Your task to perform on an android device: Do I have any events tomorrow? Image 0: 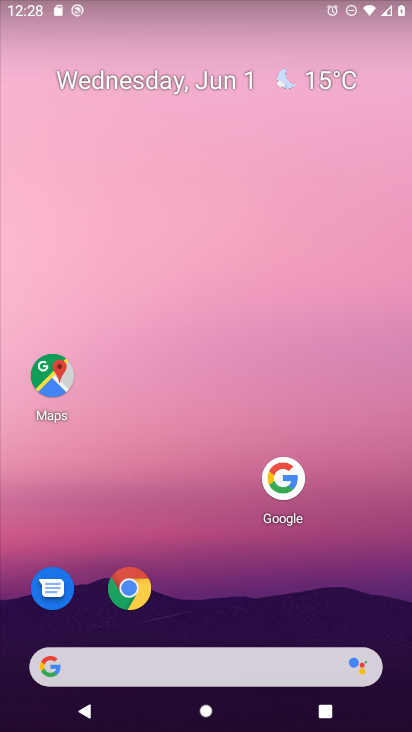
Step 0: press home button
Your task to perform on an android device: Do I have any events tomorrow? Image 1: 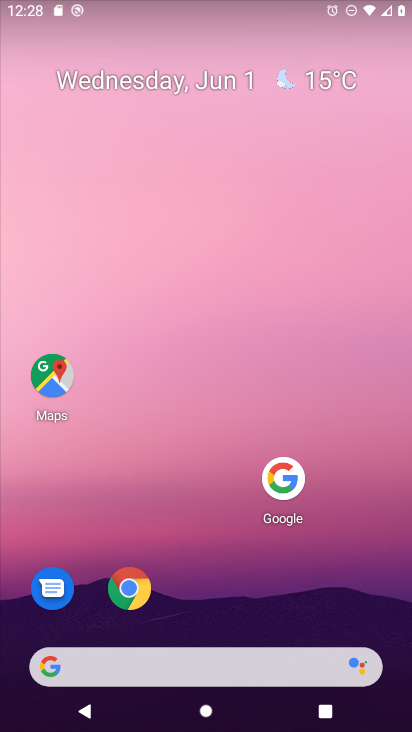
Step 1: drag from (133, 667) to (252, 236)
Your task to perform on an android device: Do I have any events tomorrow? Image 2: 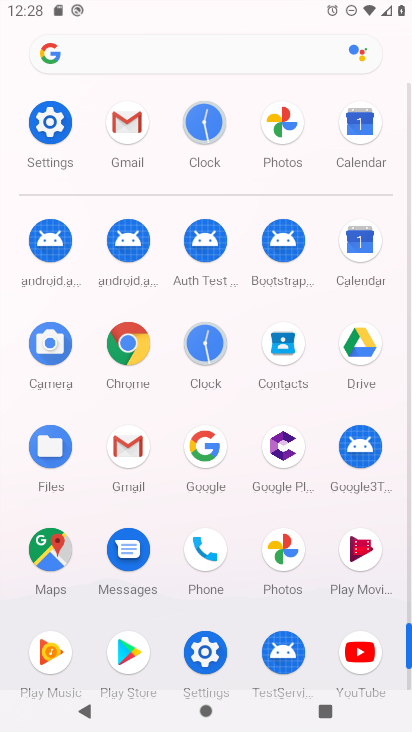
Step 2: click (357, 132)
Your task to perform on an android device: Do I have any events tomorrow? Image 3: 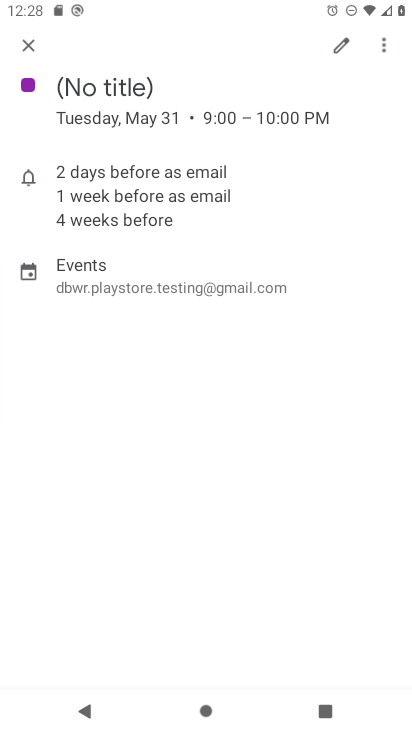
Step 3: click (28, 44)
Your task to perform on an android device: Do I have any events tomorrow? Image 4: 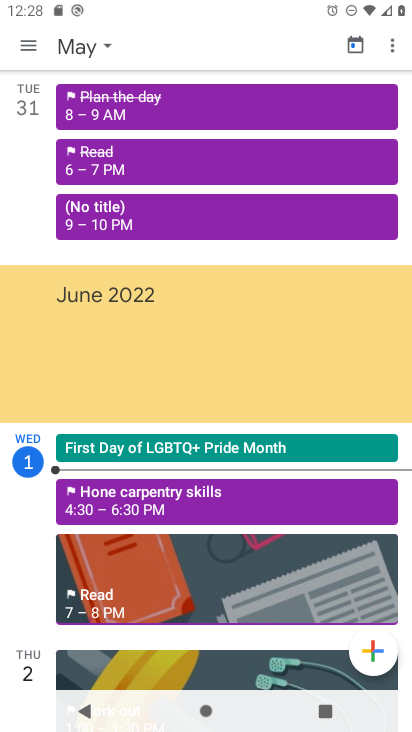
Step 4: click (80, 41)
Your task to perform on an android device: Do I have any events tomorrow? Image 5: 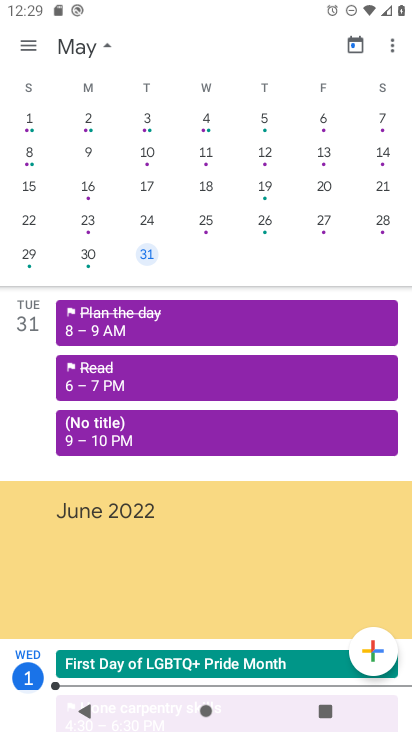
Step 5: drag from (357, 202) to (59, 194)
Your task to perform on an android device: Do I have any events tomorrow? Image 6: 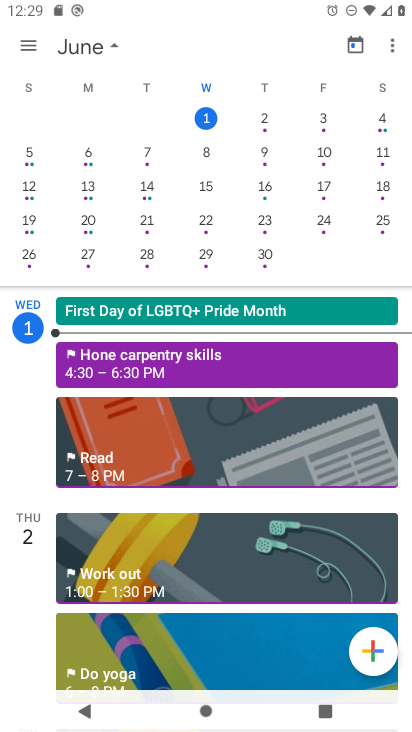
Step 6: click (208, 123)
Your task to perform on an android device: Do I have any events tomorrow? Image 7: 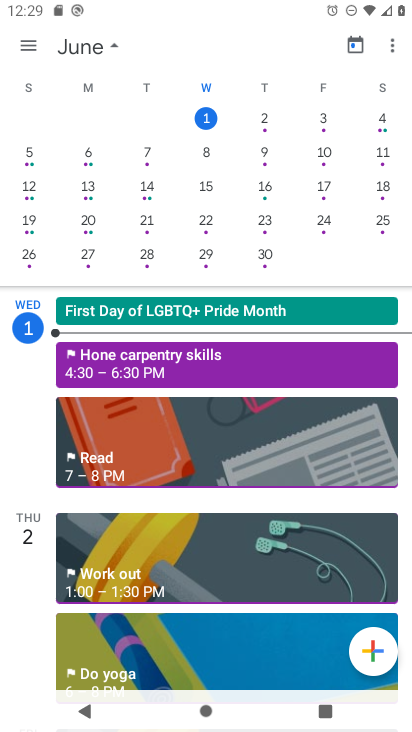
Step 7: click (22, 42)
Your task to perform on an android device: Do I have any events tomorrow? Image 8: 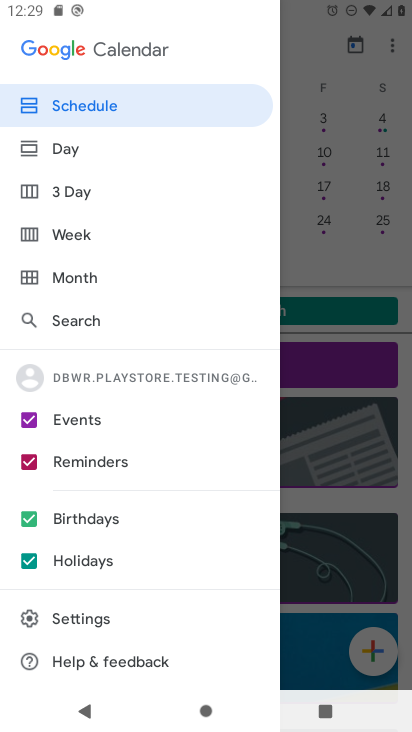
Step 8: click (79, 105)
Your task to perform on an android device: Do I have any events tomorrow? Image 9: 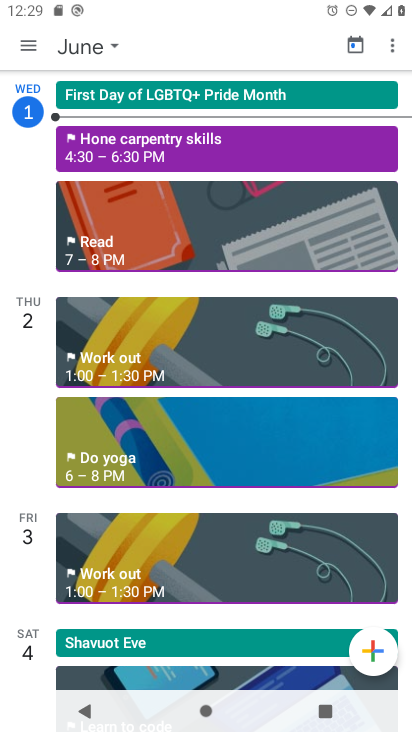
Step 9: click (155, 152)
Your task to perform on an android device: Do I have any events tomorrow? Image 10: 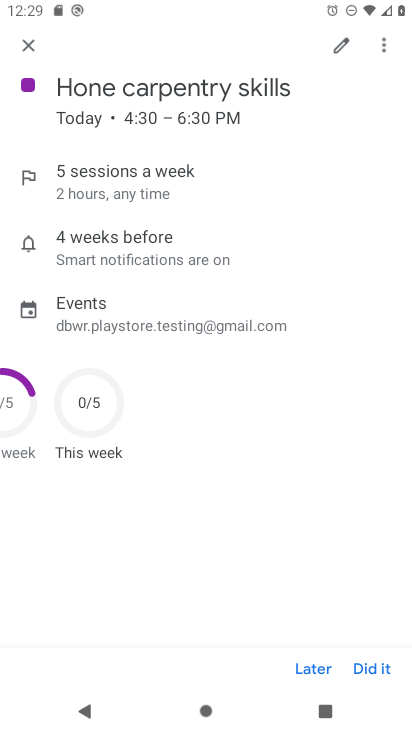
Step 10: task complete